Your task to perform on an android device: open device folders in google photos Image 0: 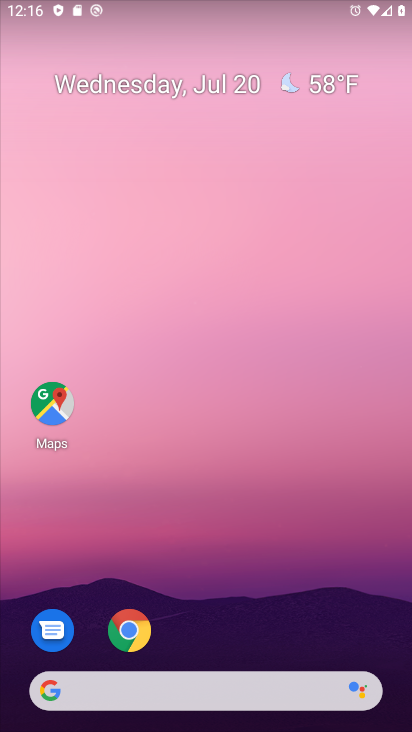
Step 0: drag from (156, 689) to (295, 149)
Your task to perform on an android device: open device folders in google photos Image 1: 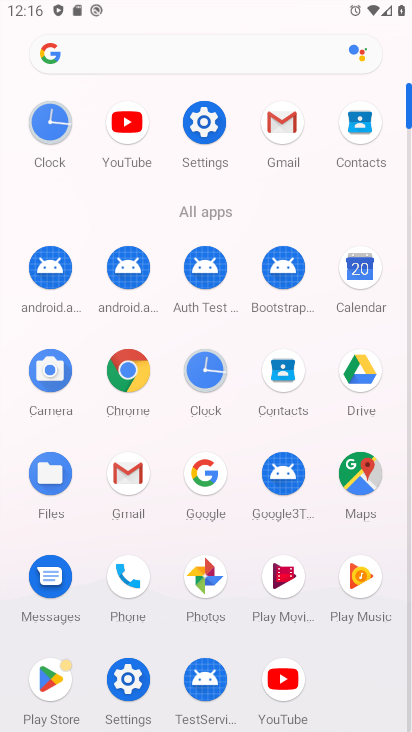
Step 1: click (205, 576)
Your task to perform on an android device: open device folders in google photos Image 2: 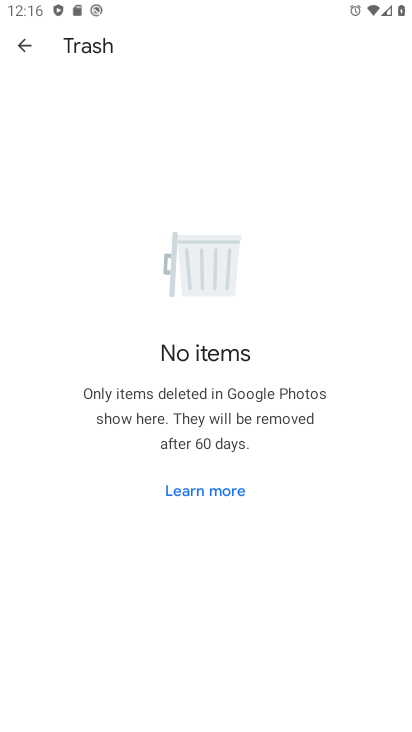
Step 2: click (20, 43)
Your task to perform on an android device: open device folders in google photos Image 3: 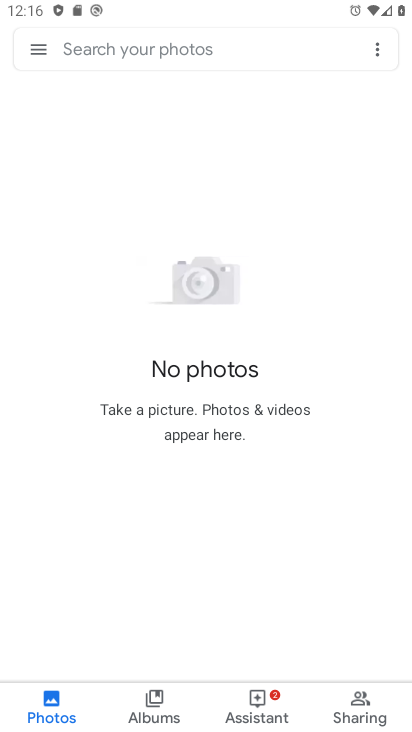
Step 3: click (40, 49)
Your task to perform on an android device: open device folders in google photos Image 4: 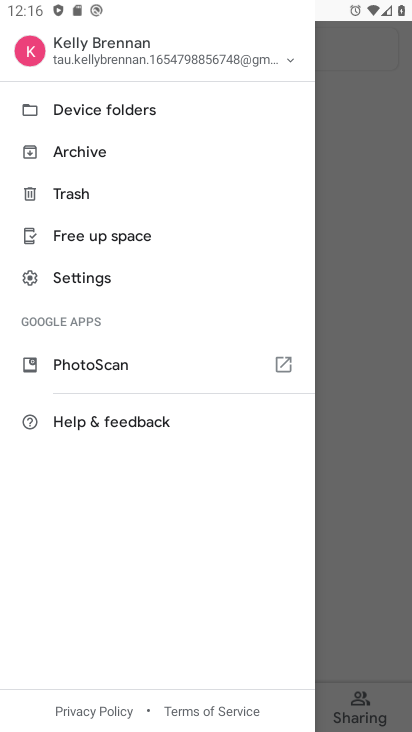
Step 4: click (89, 109)
Your task to perform on an android device: open device folders in google photos Image 5: 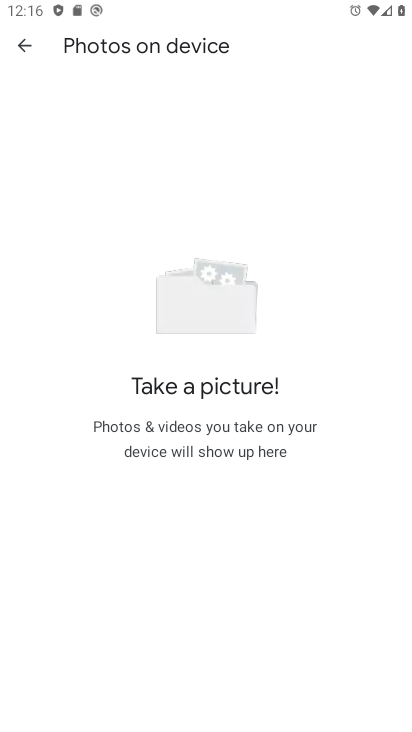
Step 5: task complete